Your task to perform on an android device: open device folders in google photos Image 0: 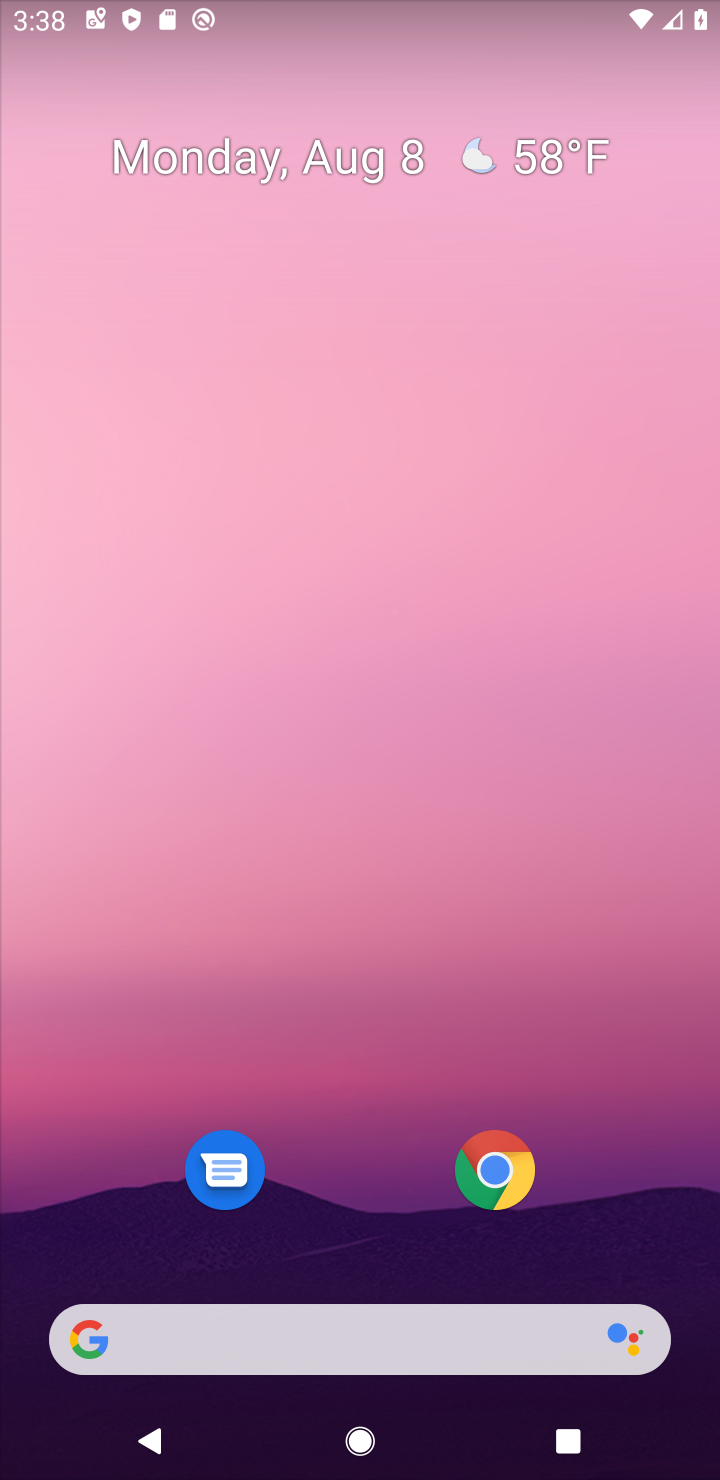
Step 0: drag from (346, 1178) to (353, 525)
Your task to perform on an android device: open device folders in google photos Image 1: 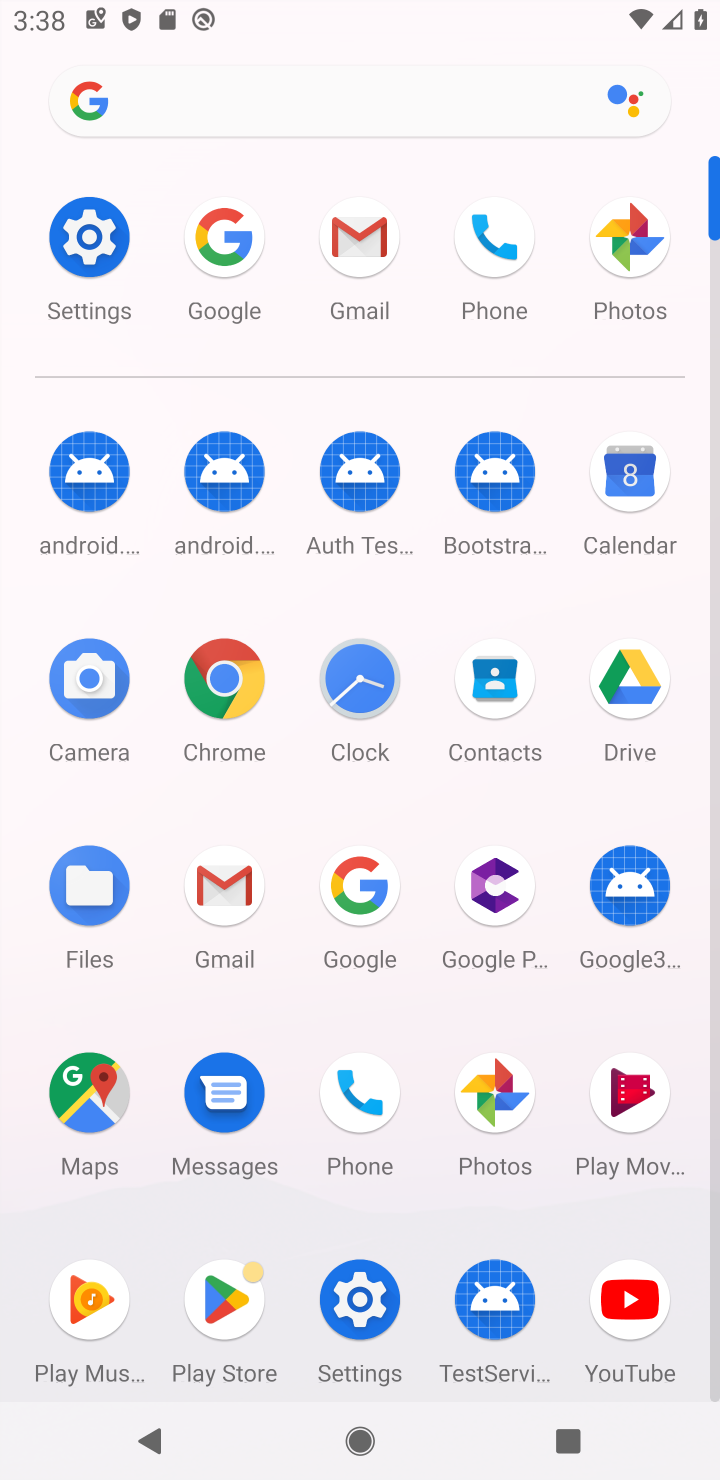
Step 1: click (619, 252)
Your task to perform on an android device: open device folders in google photos Image 2: 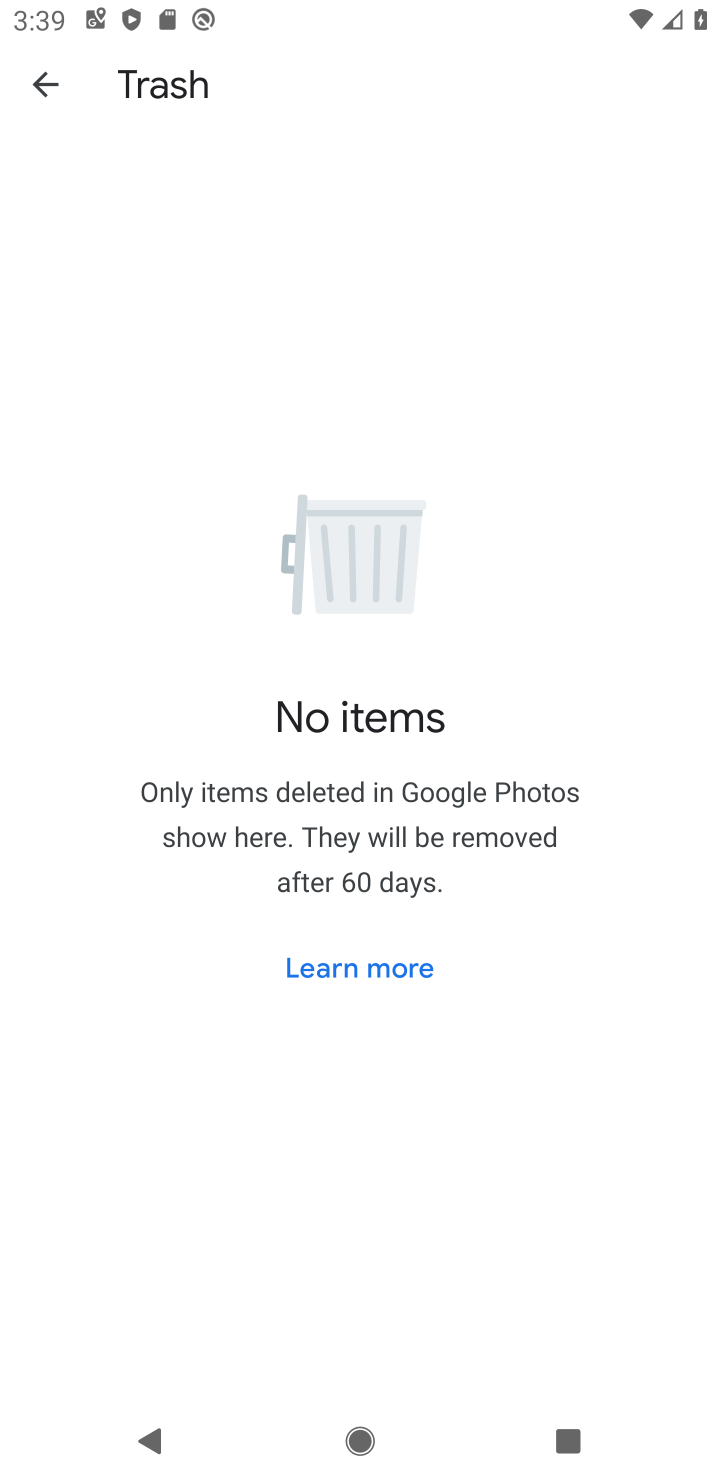
Step 2: click (47, 100)
Your task to perform on an android device: open device folders in google photos Image 3: 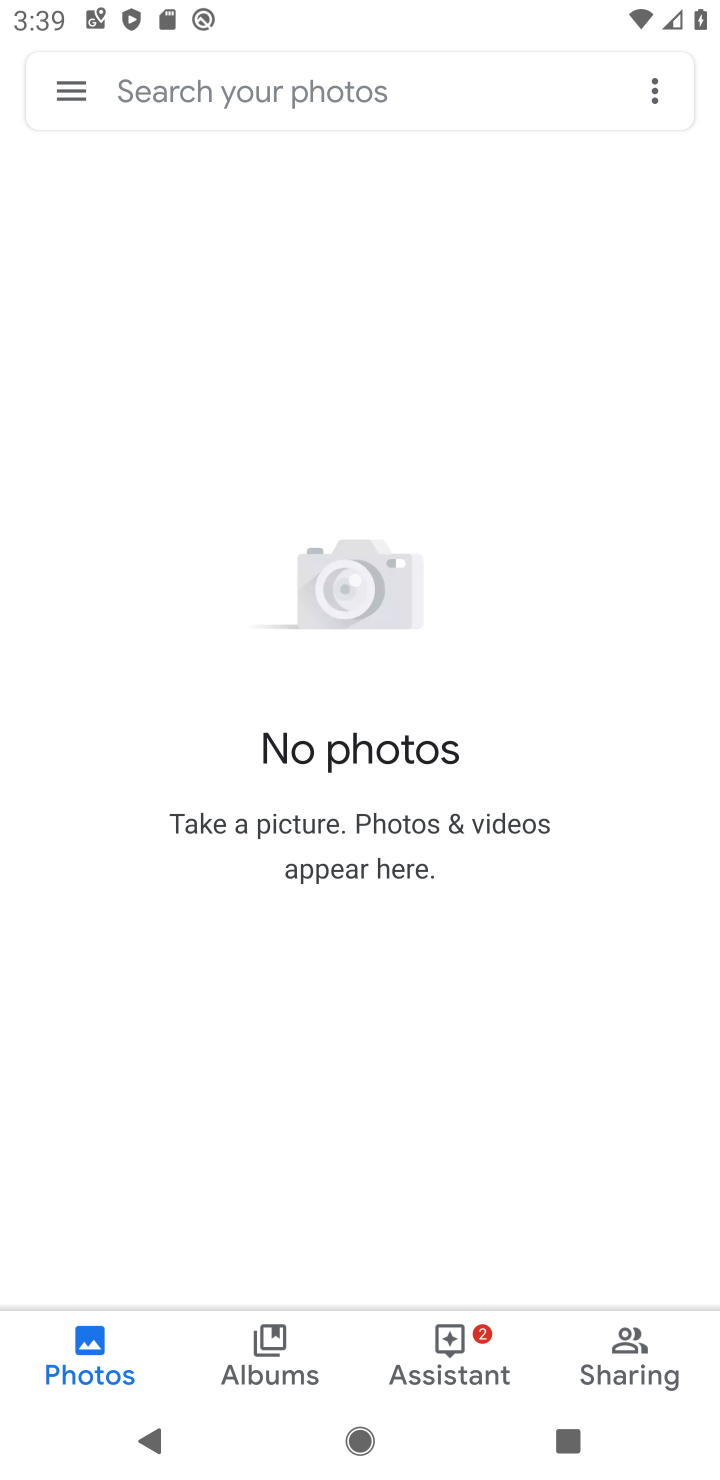
Step 3: click (59, 97)
Your task to perform on an android device: open device folders in google photos Image 4: 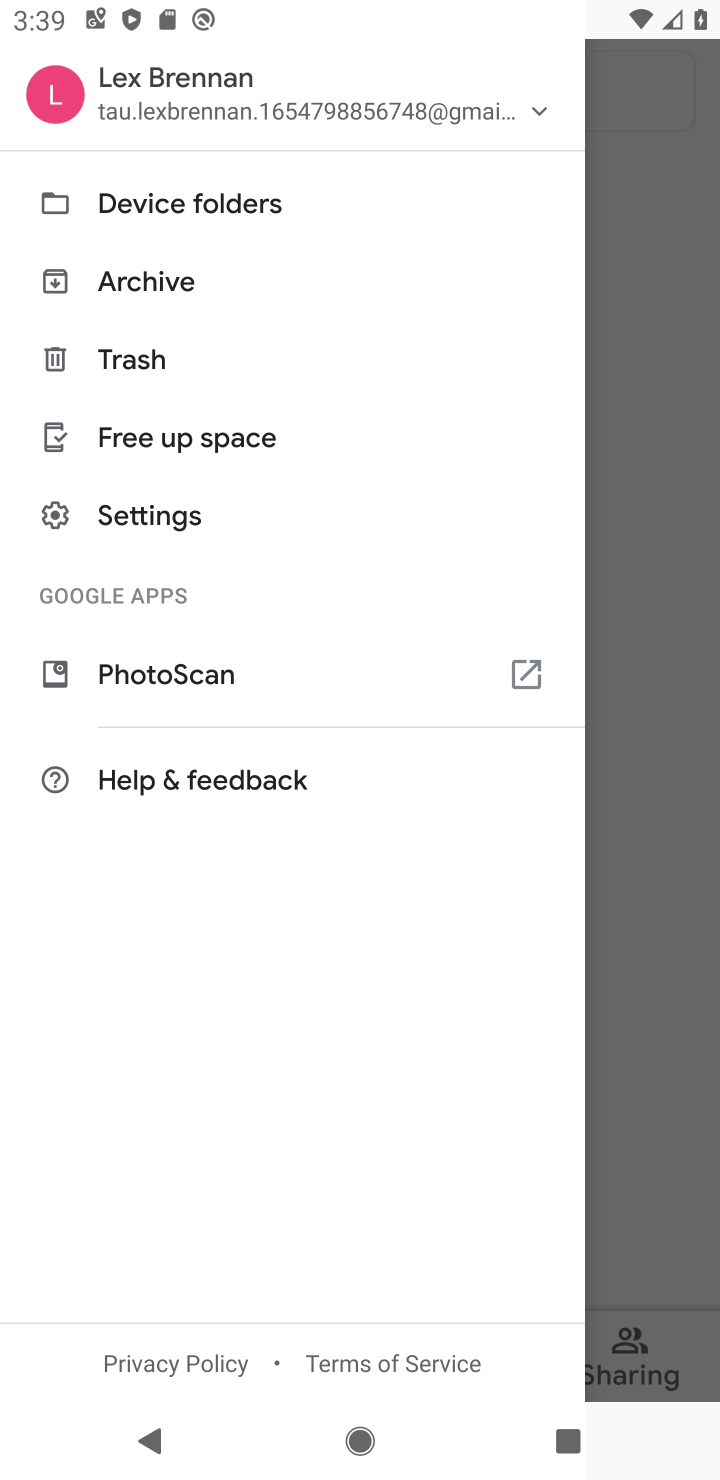
Step 4: click (188, 217)
Your task to perform on an android device: open device folders in google photos Image 5: 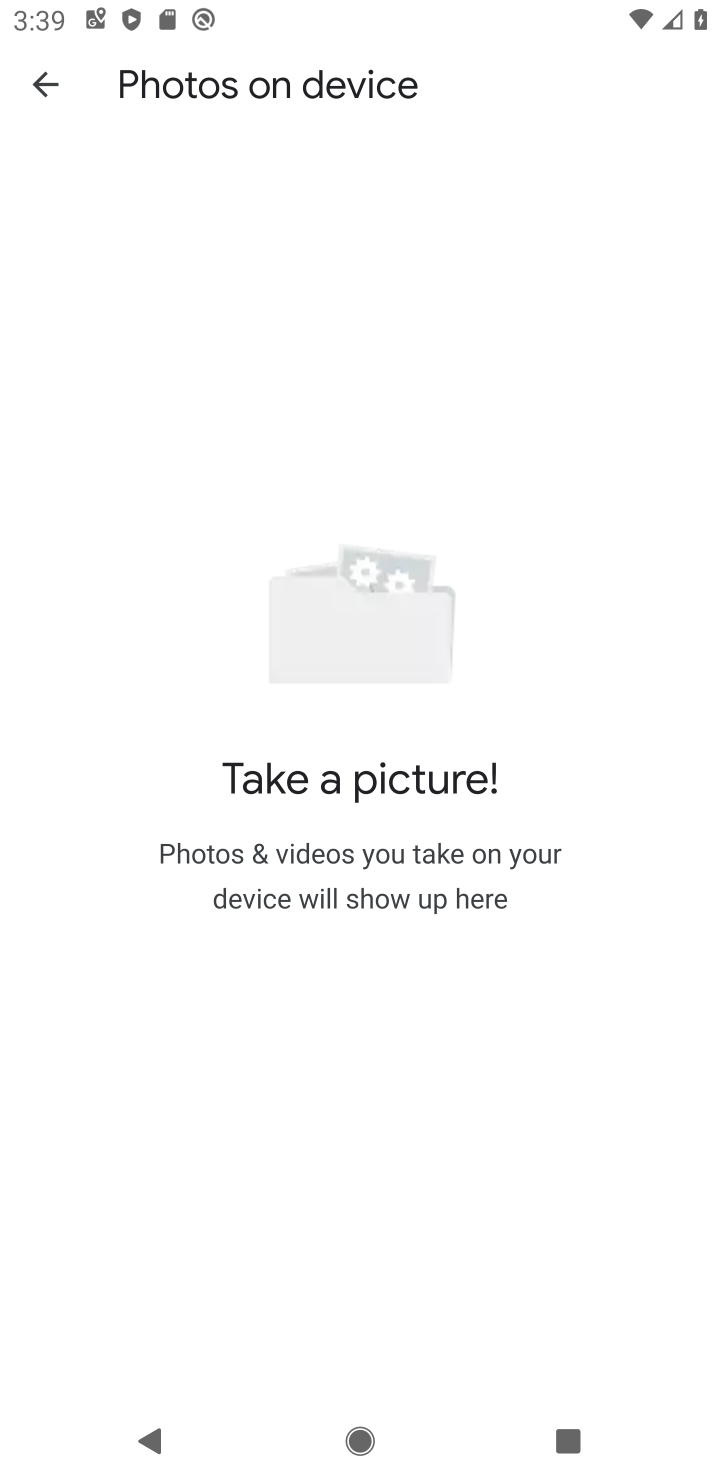
Step 5: task complete